Your task to perform on an android device: open device folders in google photos Image 0: 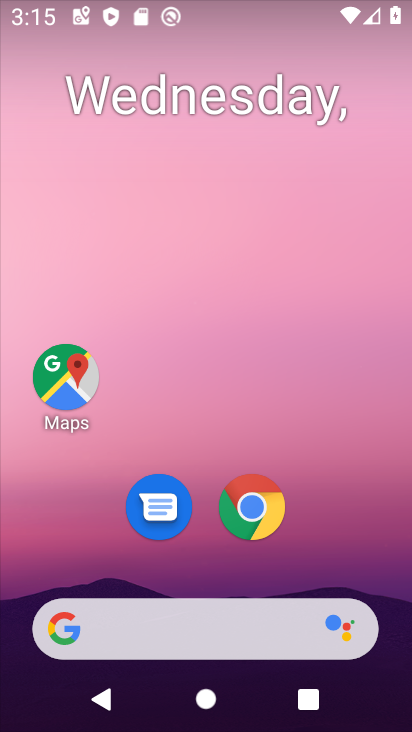
Step 0: click (234, 514)
Your task to perform on an android device: open device folders in google photos Image 1: 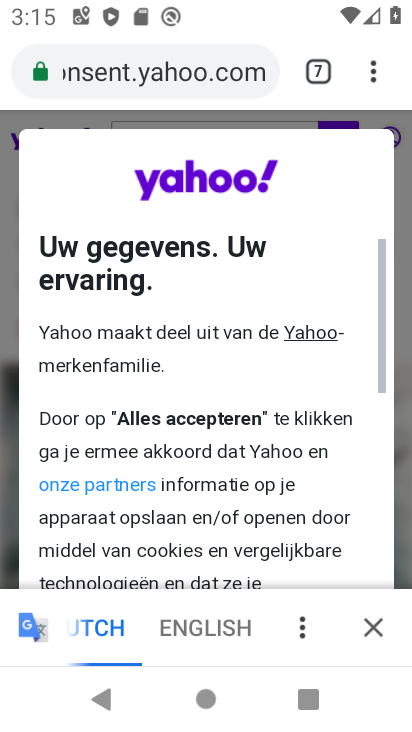
Step 1: press home button
Your task to perform on an android device: open device folders in google photos Image 2: 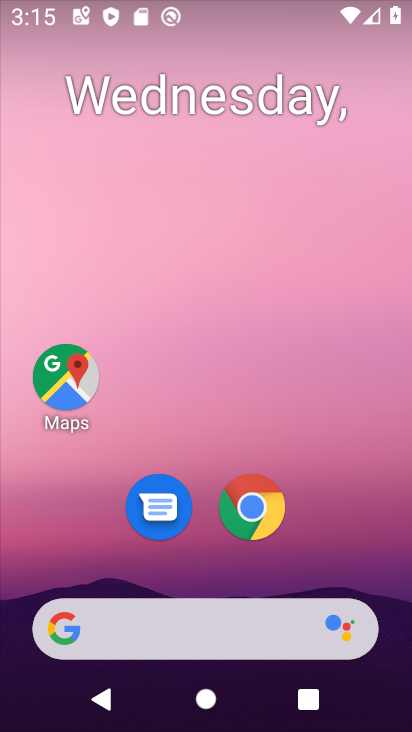
Step 2: drag from (295, 561) to (346, 250)
Your task to perform on an android device: open device folders in google photos Image 3: 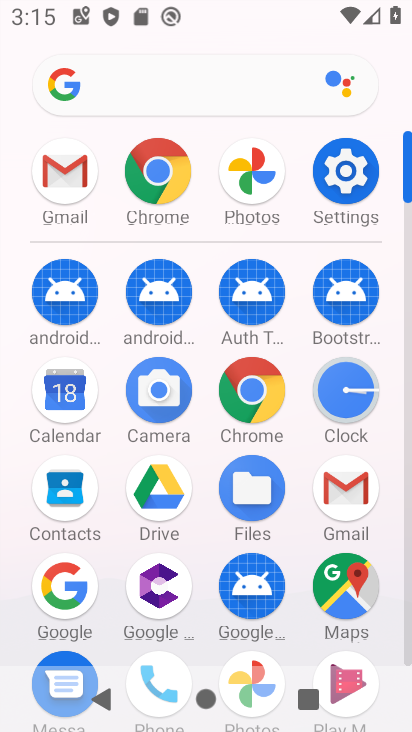
Step 3: click (243, 165)
Your task to perform on an android device: open device folders in google photos Image 4: 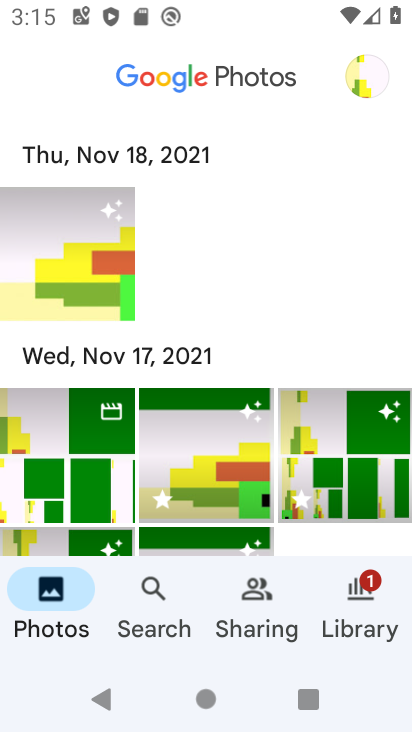
Step 4: click (368, 86)
Your task to perform on an android device: open device folders in google photos Image 5: 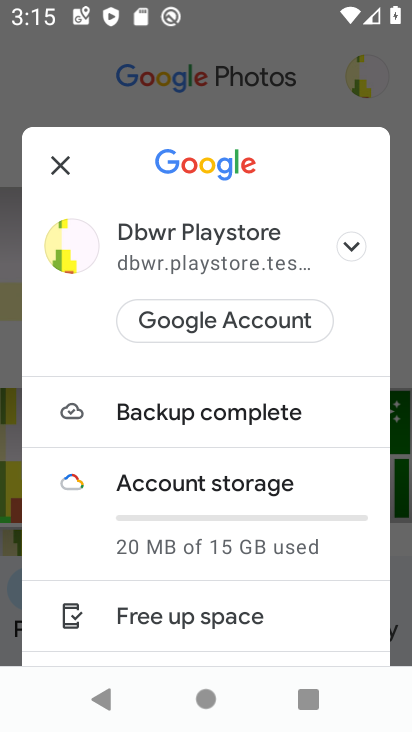
Step 5: drag from (216, 616) to (256, 366)
Your task to perform on an android device: open device folders in google photos Image 6: 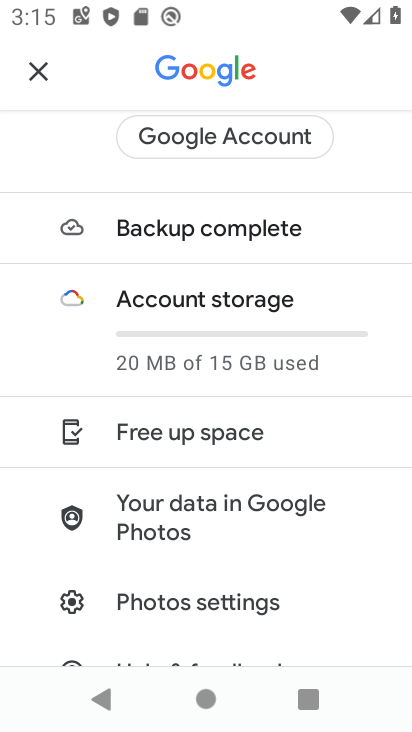
Step 6: drag from (168, 585) to (201, 411)
Your task to perform on an android device: open device folders in google photos Image 7: 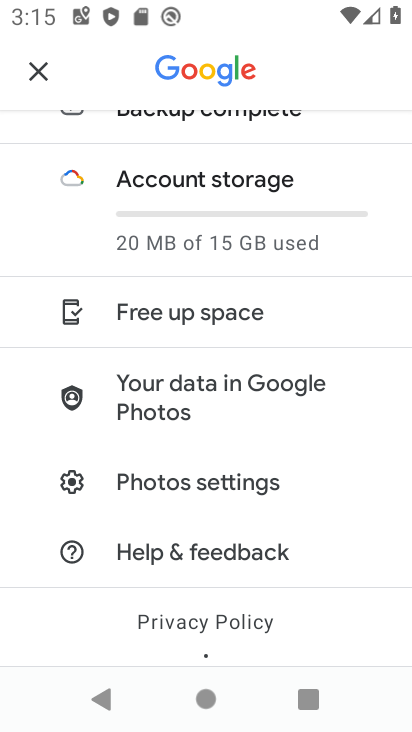
Step 7: click (166, 477)
Your task to perform on an android device: open device folders in google photos Image 8: 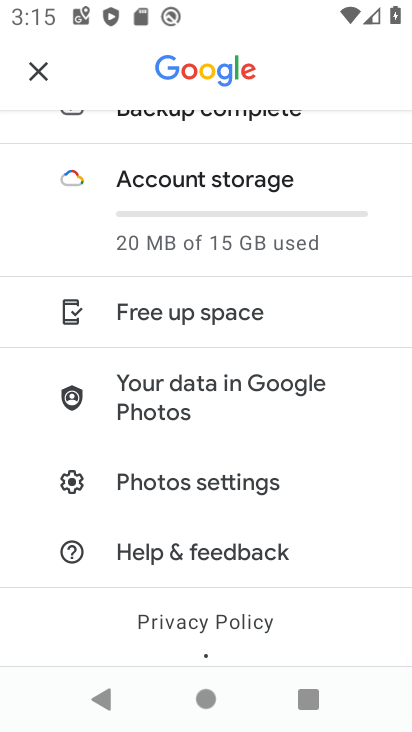
Step 8: click (166, 477)
Your task to perform on an android device: open device folders in google photos Image 9: 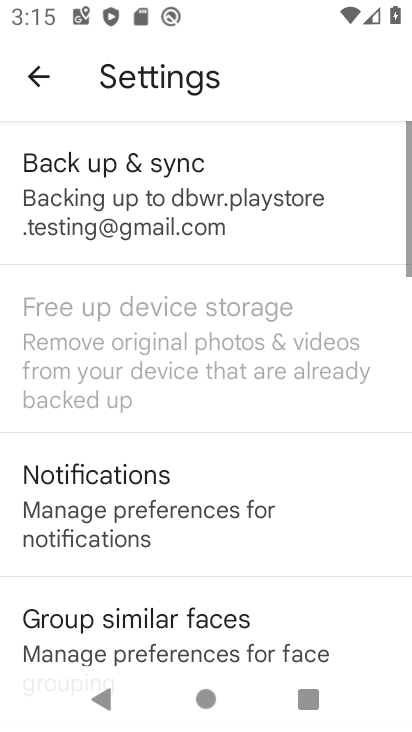
Step 9: drag from (196, 536) to (247, 204)
Your task to perform on an android device: open device folders in google photos Image 10: 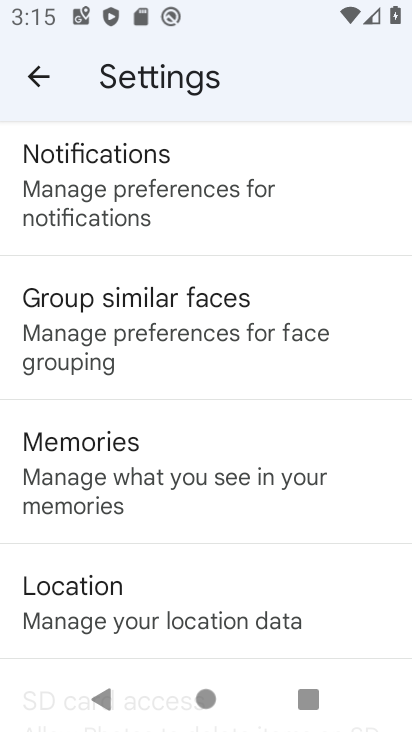
Step 10: drag from (202, 495) to (217, 210)
Your task to perform on an android device: open device folders in google photos Image 11: 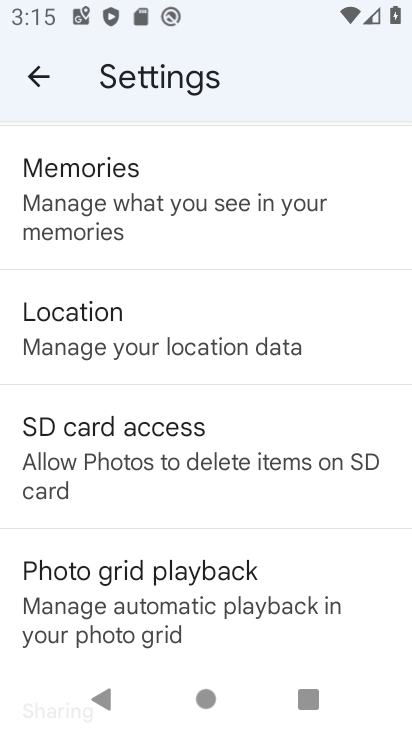
Step 11: drag from (174, 555) to (238, 291)
Your task to perform on an android device: open device folders in google photos Image 12: 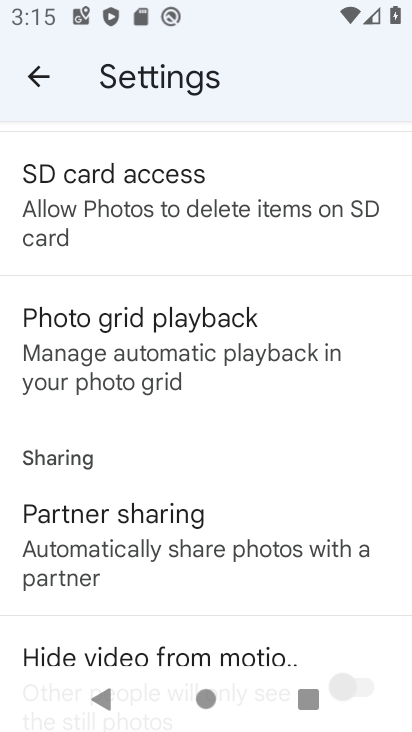
Step 12: drag from (161, 569) to (201, 264)
Your task to perform on an android device: open device folders in google photos Image 13: 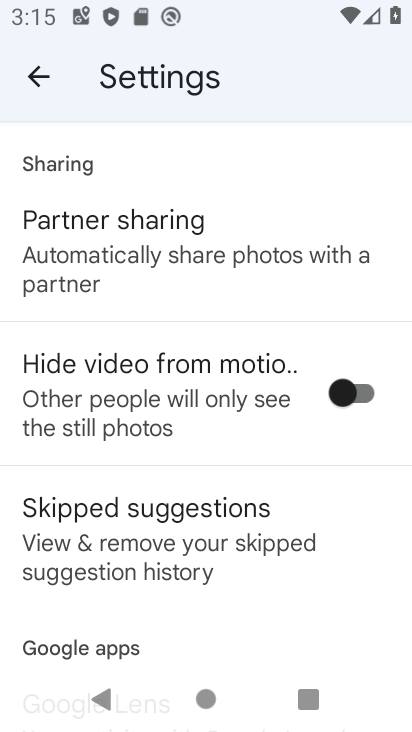
Step 13: drag from (158, 575) to (274, 200)
Your task to perform on an android device: open device folders in google photos Image 14: 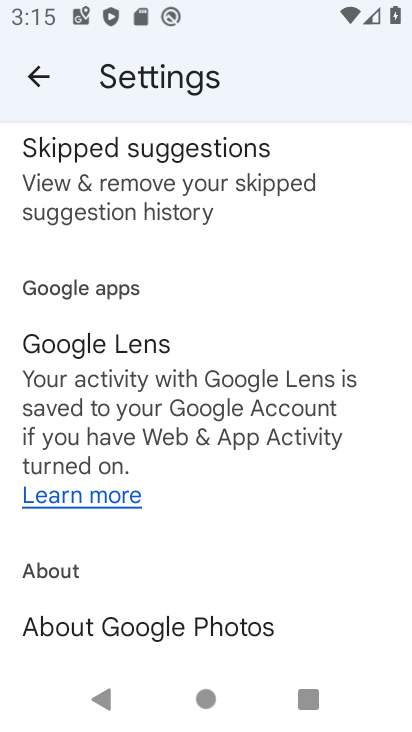
Step 14: drag from (169, 536) to (250, 310)
Your task to perform on an android device: open device folders in google photos Image 15: 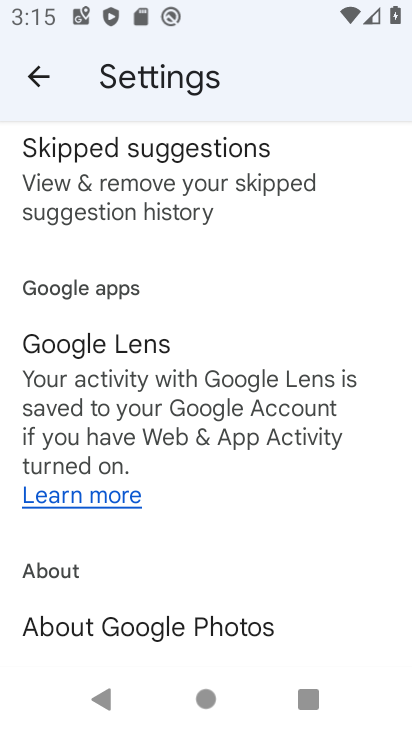
Step 15: click (169, 616)
Your task to perform on an android device: open device folders in google photos Image 16: 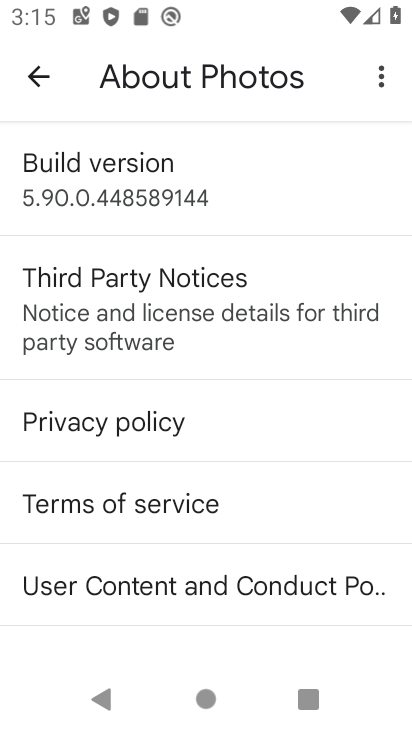
Step 16: task complete